Your task to perform on an android device: What's the weather like in Hong Kong? Image 0: 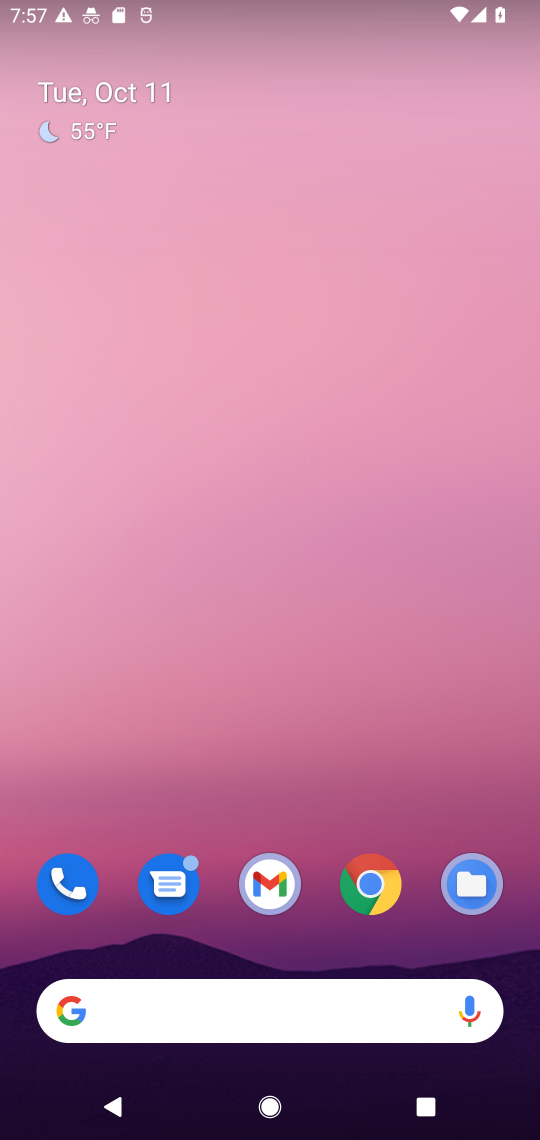
Step 0: drag from (294, 802) to (326, 76)
Your task to perform on an android device: What's the weather like in Hong Kong? Image 1: 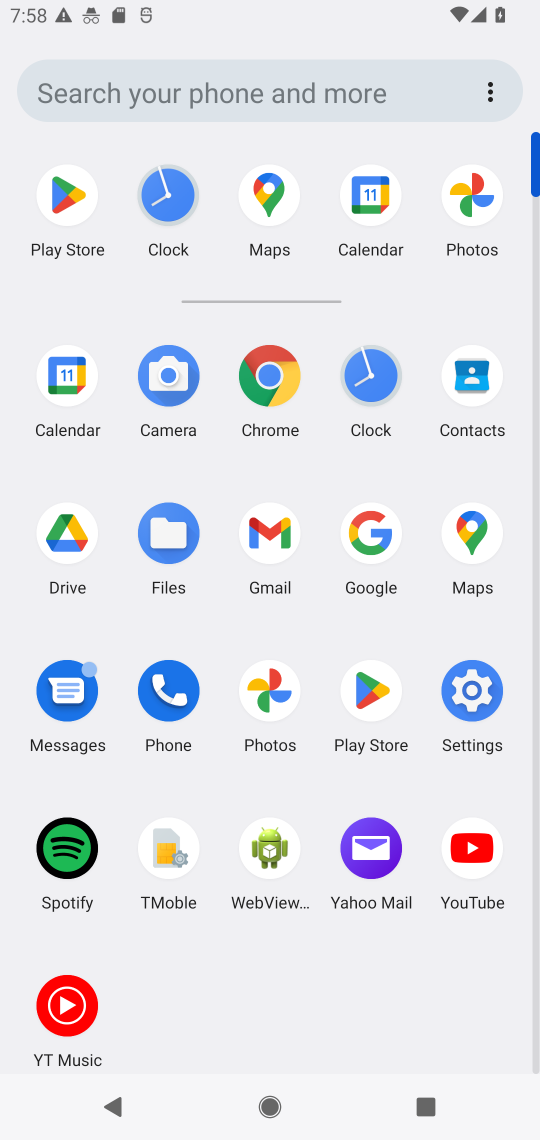
Step 1: click (374, 535)
Your task to perform on an android device: What's the weather like in Hong Kong? Image 2: 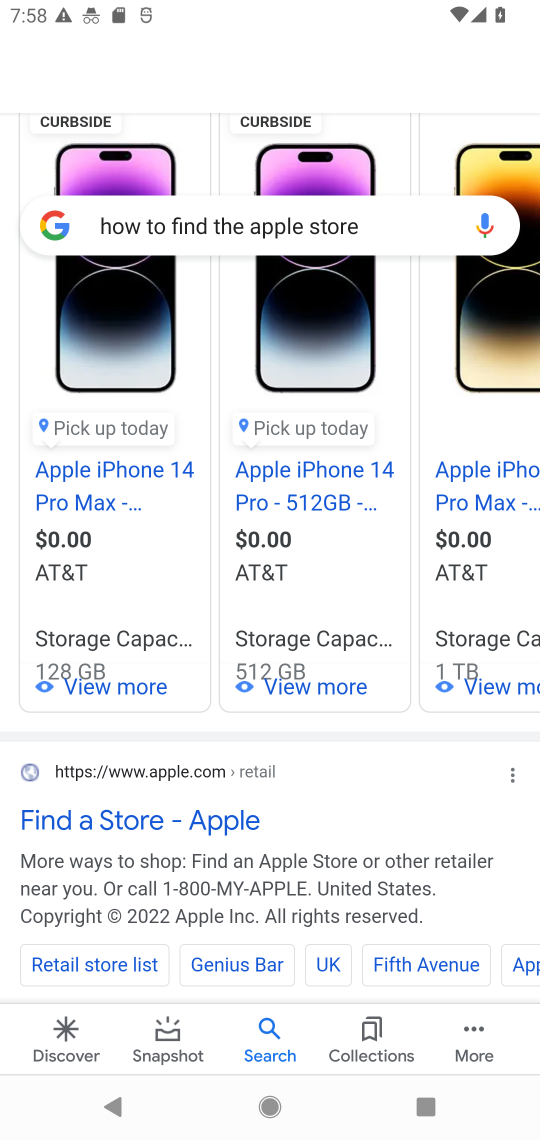
Step 2: click (305, 233)
Your task to perform on an android device: What's the weather like in Hong Kong? Image 3: 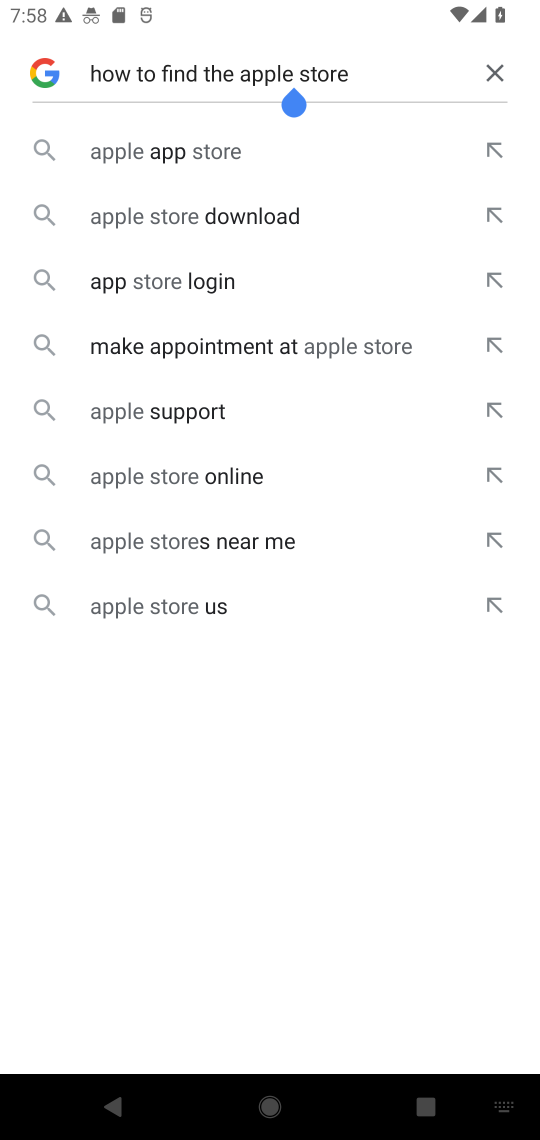
Step 3: click (489, 79)
Your task to perform on an android device: What's the weather like in Hong Kong? Image 4: 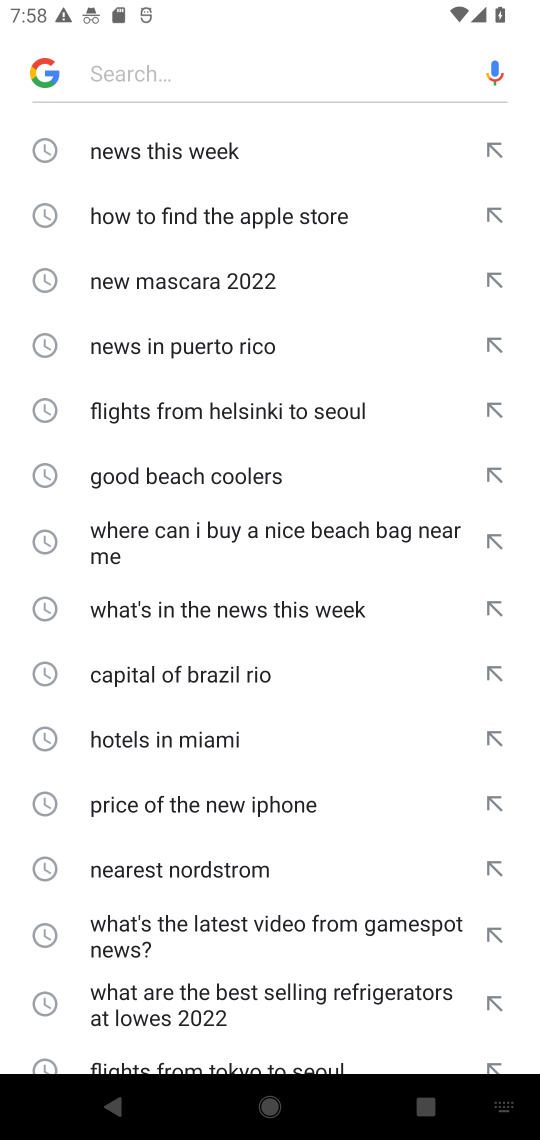
Step 4: type "weather like in Hong Kong?"
Your task to perform on an android device: What's the weather like in Hong Kong? Image 5: 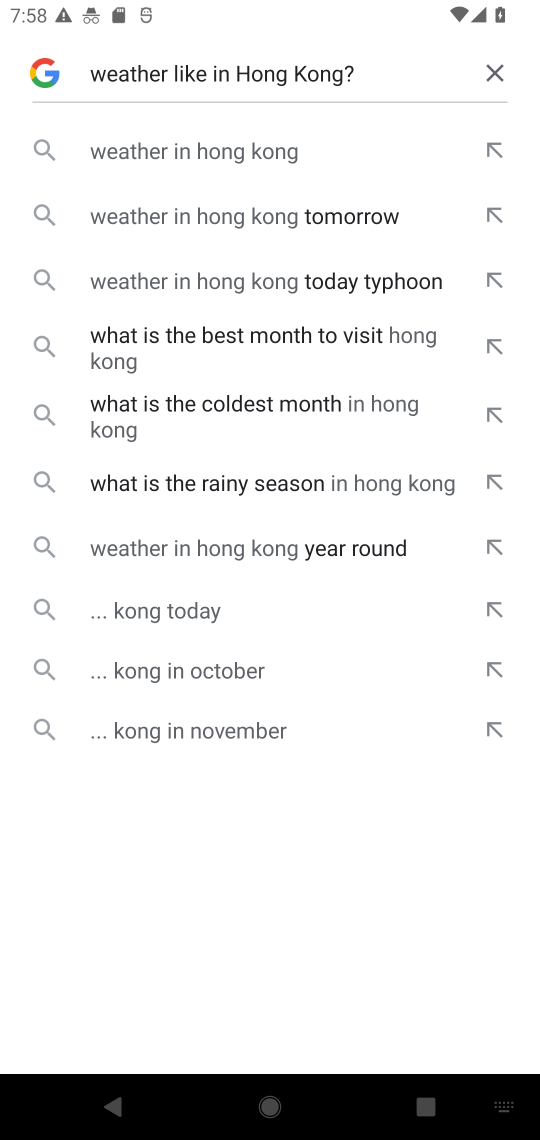
Step 5: click (180, 162)
Your task to perform on an android device: What's the weather like in Hong Kong? Image 6: 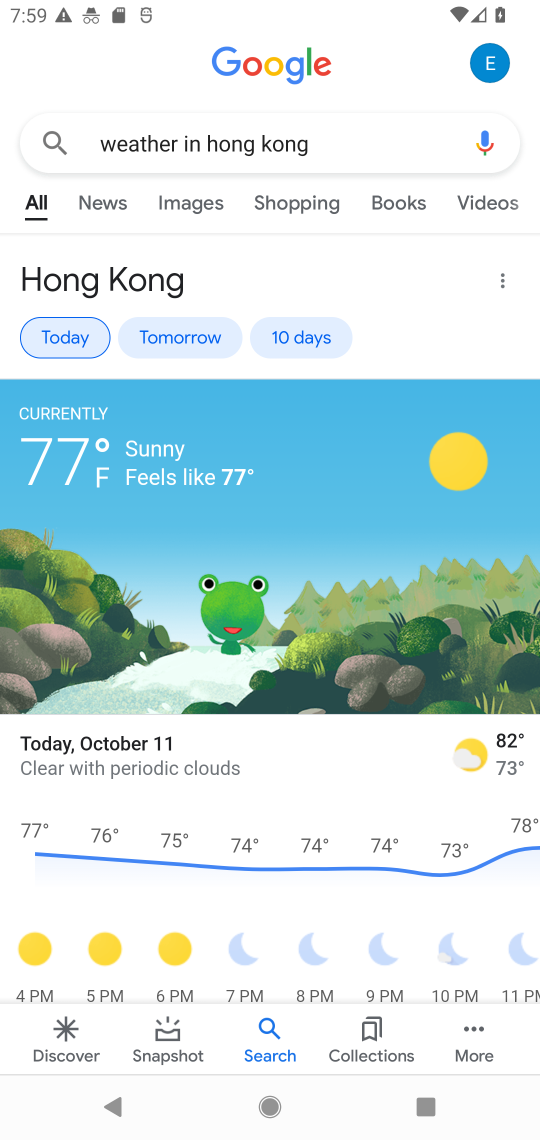
Step 6: task complete